Your task to perform on an android device: Check the news Image 0: 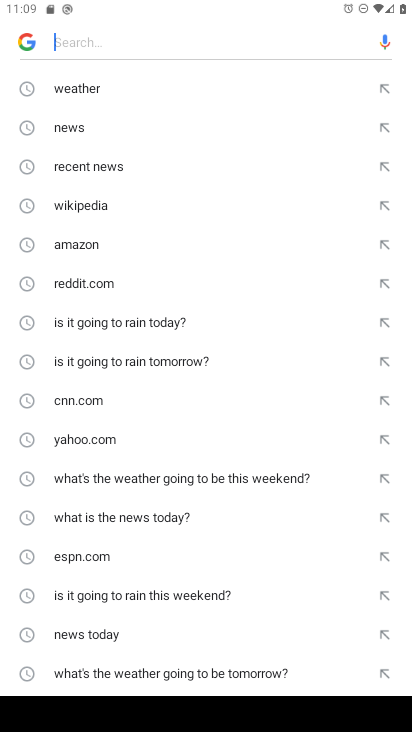
Step 0: press home button
Your task to perform on an android device: Check the news Image 1: 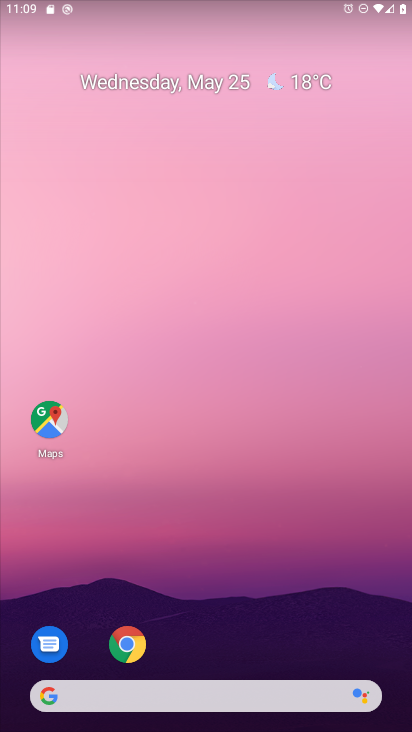
Step 1: task complete